Your task to perform on an android device: Open the map Image 0: 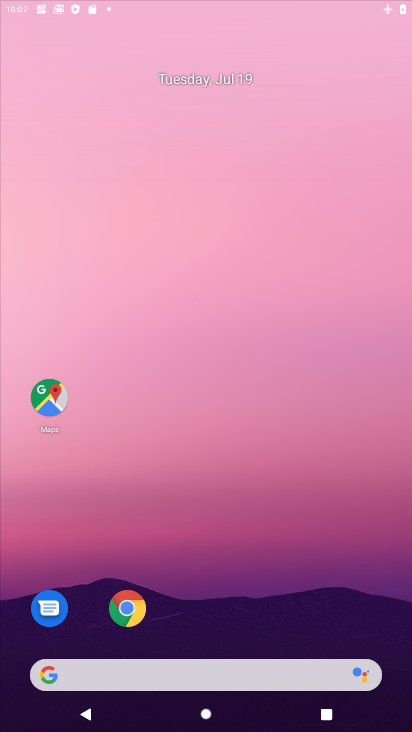
Step 0: drag from (328, 499) to (265, 37)
Your task to perform on an android device: Open the map Image 1: 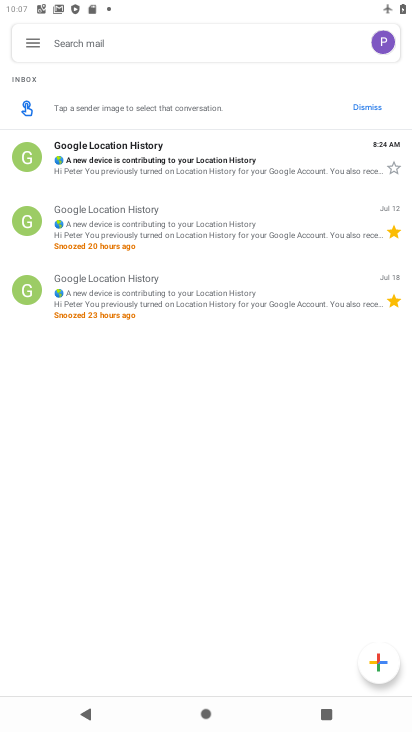
Step 1: press home button
Your task to perform on an android device: Open the map Image 2: 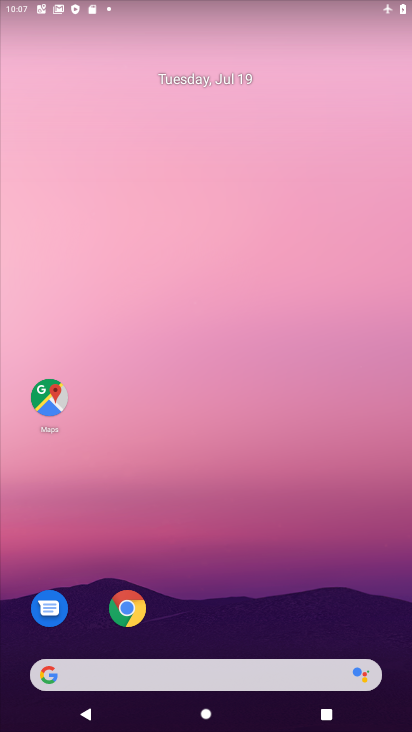
Step 2: click (47, 400)
Your task to perform on an android device: Open the map Image 3: 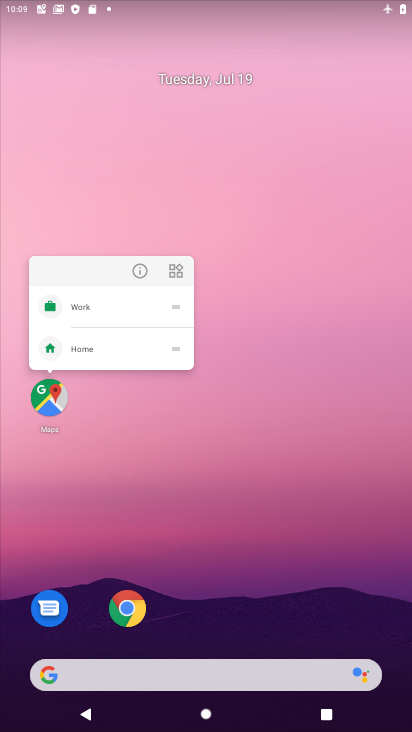
Step 3: drag from (310, 569) to (267, 72)
Your task to perform on an android device: Open the map Image 4: 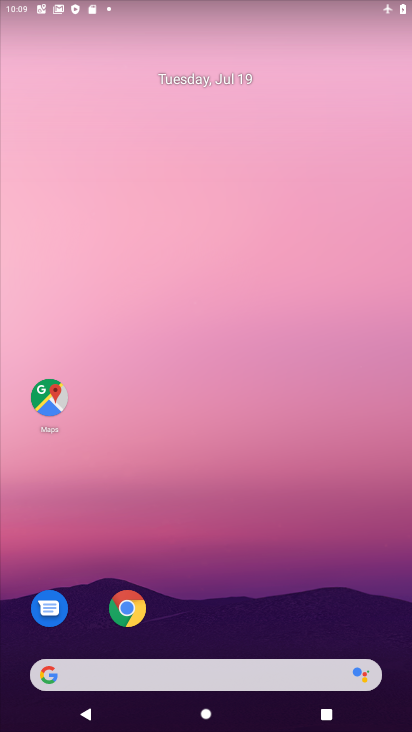
Step 4: drag from (293, 580) to (242, 14)
Your task to perform on an android device: Open the map Image 5: 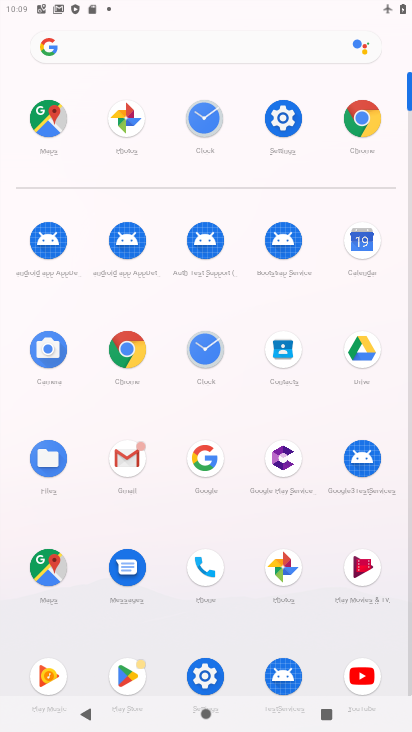
Step 5: click (51, 125)
Your task to perform on an android device: Open the map Image 6: 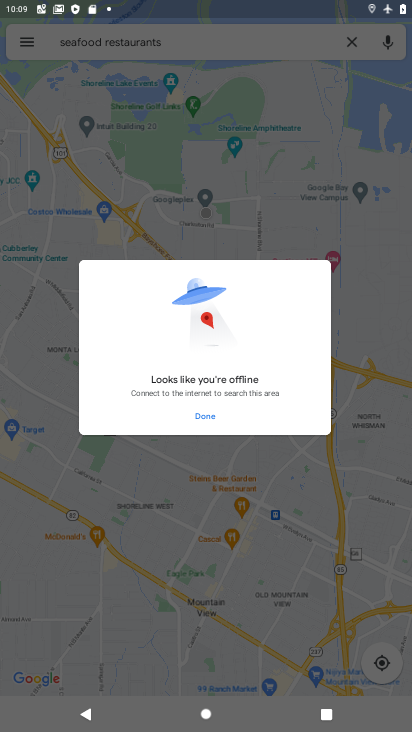
Step 6: task complete